Your task to perform on an android device: turn on data saver in the chrome app Image 0: 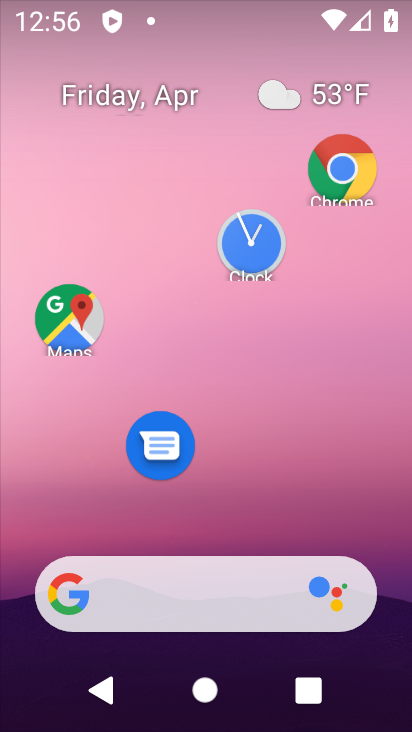
Step 0: click (340, 193)
Your task to perform on an android device: turn on data saver in the chrome app Image 1: 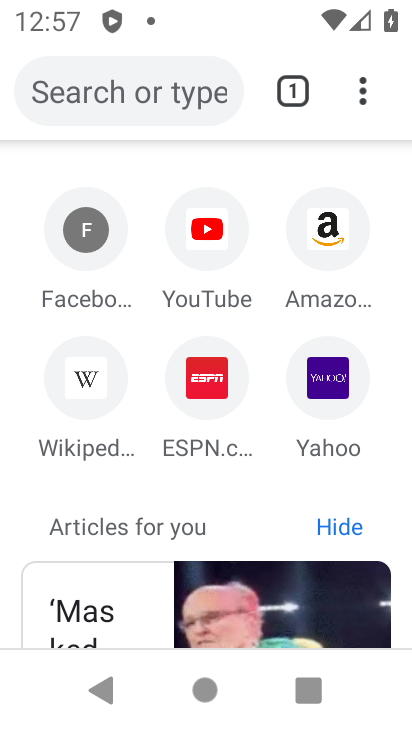
Step 1: click (372, 86)
Your task to perform on an android device: turn on data saver in the chrome app Image 2: 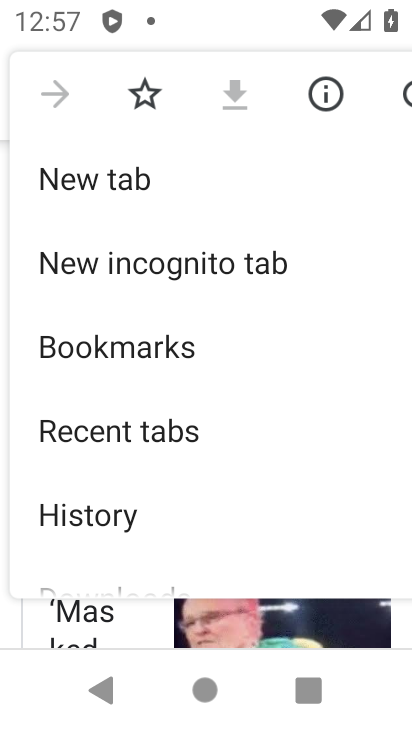
Step 2: drag from (192, 475) to (227, 259)
Your task to perform on an android device: turn on data saver in the chrome app Image 3: 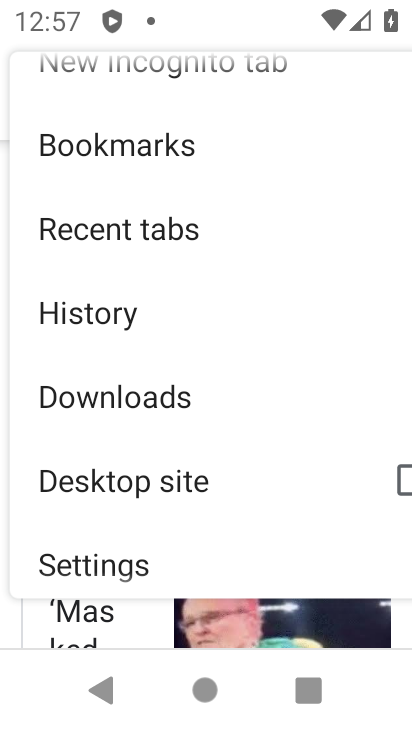
Step 3: drag from (154, 508) to (156, 377)
Your task to perform on an android device: turn on data saver in the chrome app Image 4: 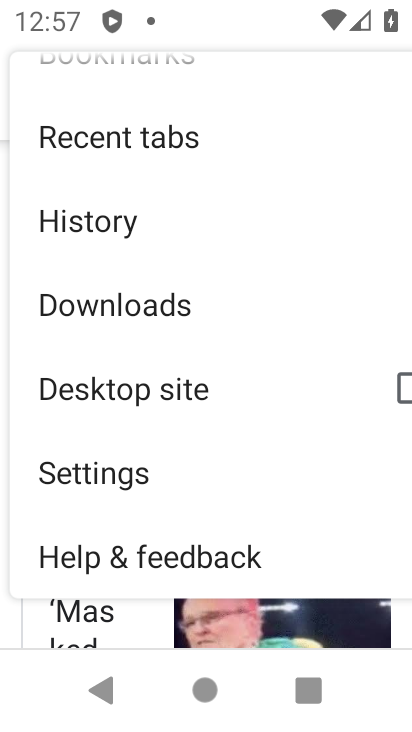
Step 4: drag from (118, 516) to (147, 348)
Your task to perform on an android device: turn on data saver in the chrome app Image 5: 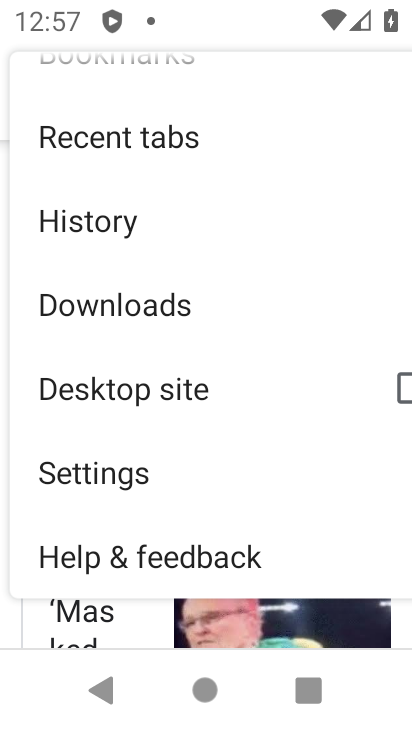
Step 5: click (111, 467)
Your task to perform on an android device: turn on data saver in the chrome app Image 6: 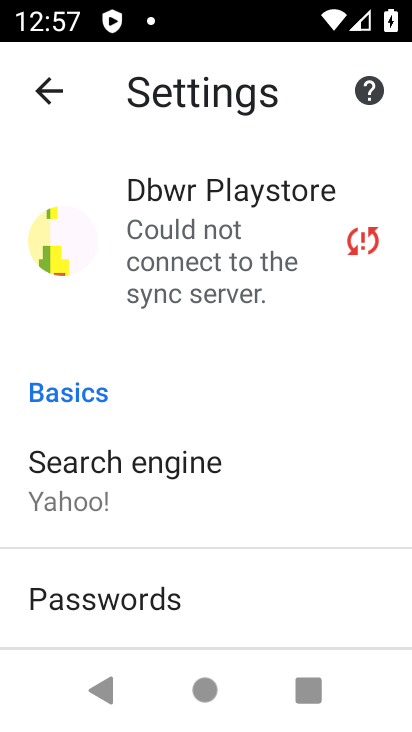
Step 6: drag from (148, 526) to (168, 299)
Your task to perform on an android device: turn on data saver in the chrome app Image 7: 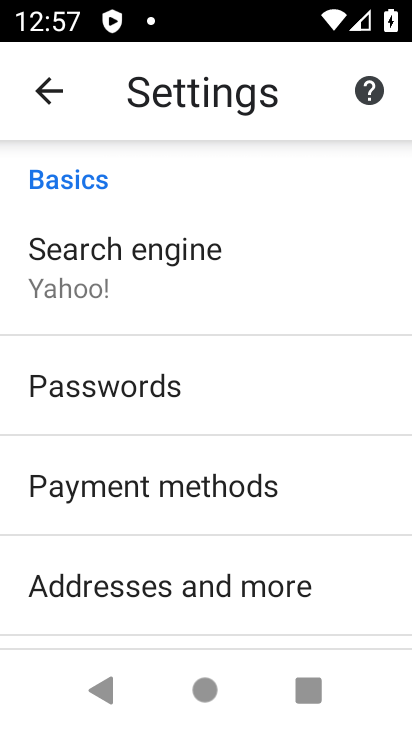
Step 7: drag from (154, 485) to (231, 225)
Your task to perform on an android device: turn on data saver in the chrome app Image 8: 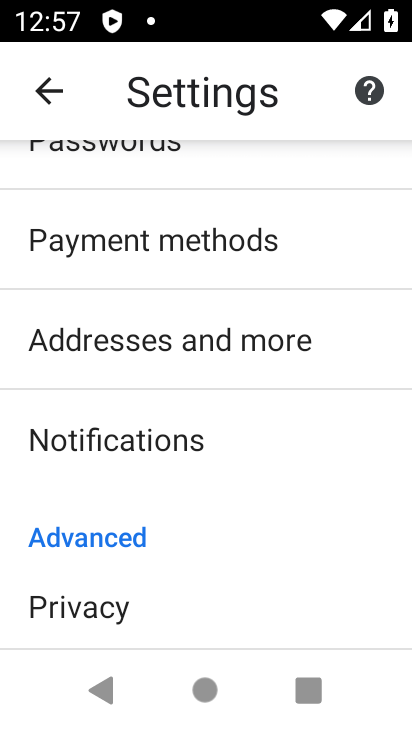
Step 8: drag from (200, 523) to (238, 320)
Your task to perform on an android device: turn on data saver in the chrome app Image 9: 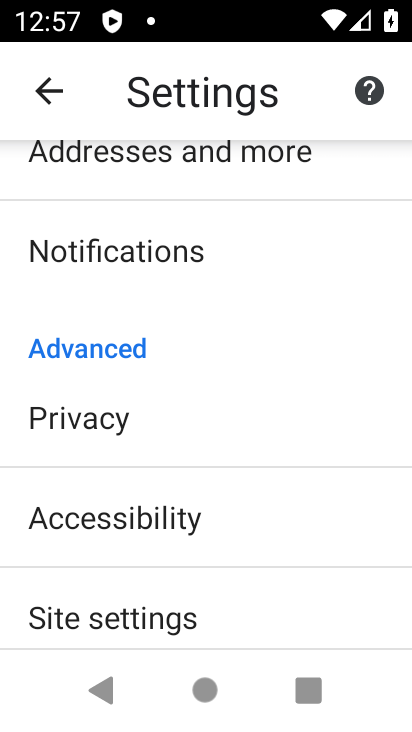
Step 9: drag from (178, 521) to (215, 330)
Your task to perform on an android device: turn on data saver in the chrome app Image 10: 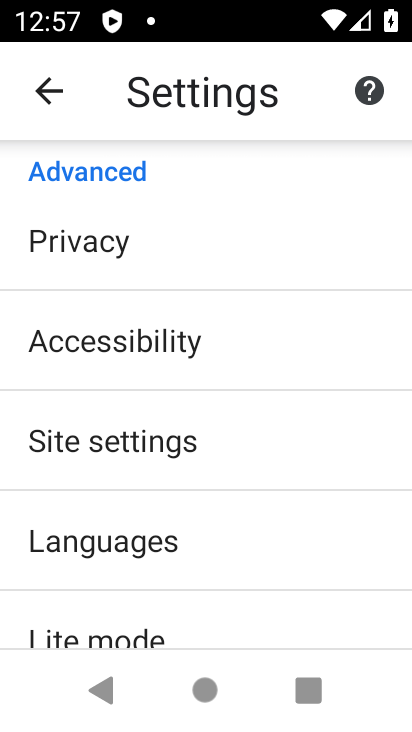
Step 10: drag from (176, 515) to (188, 359)
Your task to perform on an android device: turn on data saver in the chrome app Image 11: 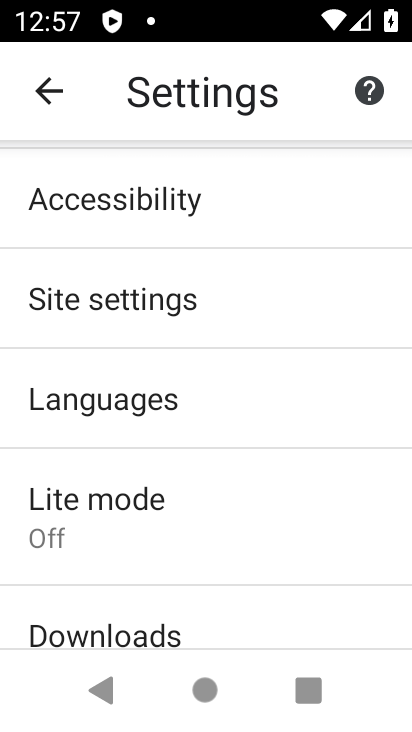
Step 11: click (148, 507)
Your task to perform on an android device: turn on data saver in the chrome app Image 12: 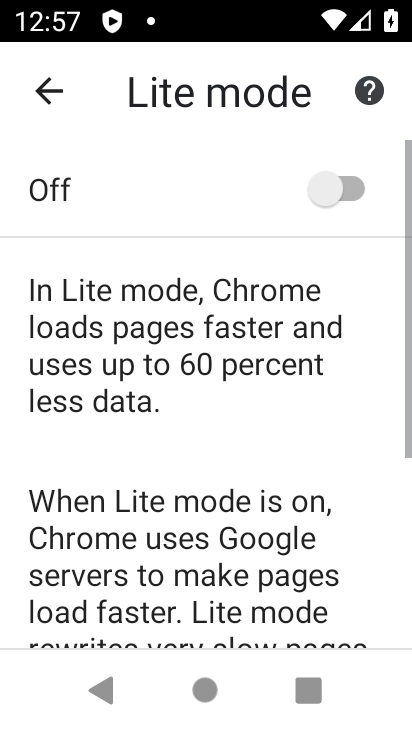
Step 12: click (330, 217)
Your task to perform on an android device: turn on data saver in the chrome app Image 13: 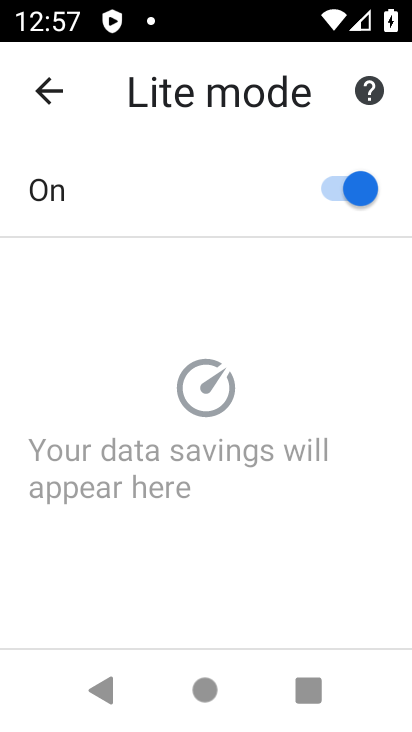
Step 13: task complete